Your task to perform on an android device: turn off smart reply in the gmail app Image 0: 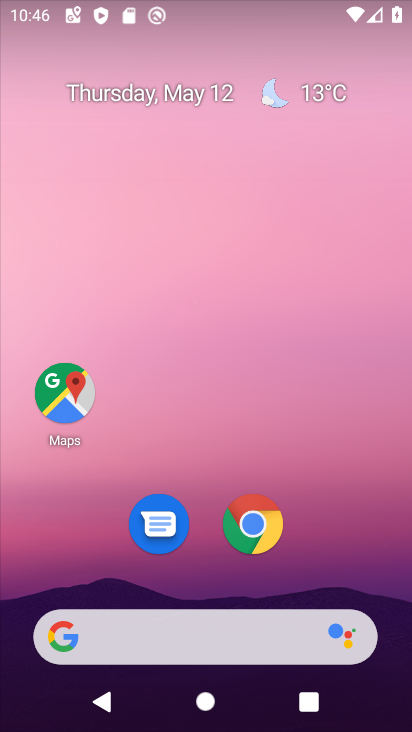
Step 0: drag from (326, 450) to (326, 41)
Your task to perform on an android device: turn off smart reply in the gmail app Image 1: 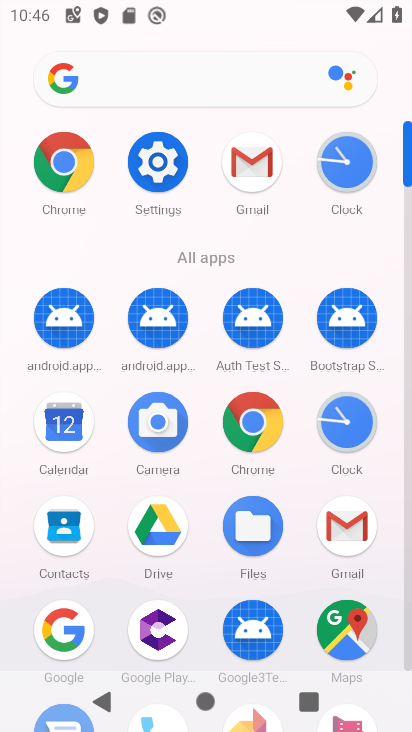
Step 1: click (255, 155)
Your task to perform on an android device: turn off smart reply in the gmail app Image 2: 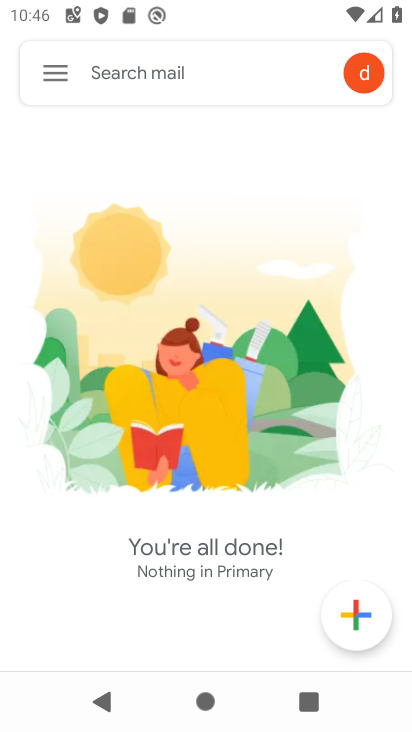
Step 2: click (53, 64)
Your task to perform on an android device: turn off smart reply in the gmail app Image 3: 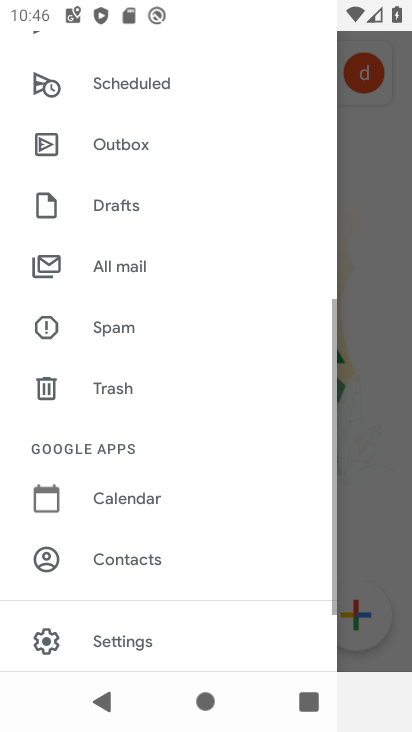
Step 3: drag from (159, 416) to (224, 211)
Your task to perform on an android device: turn off smart reply in the gmail app Image 4: 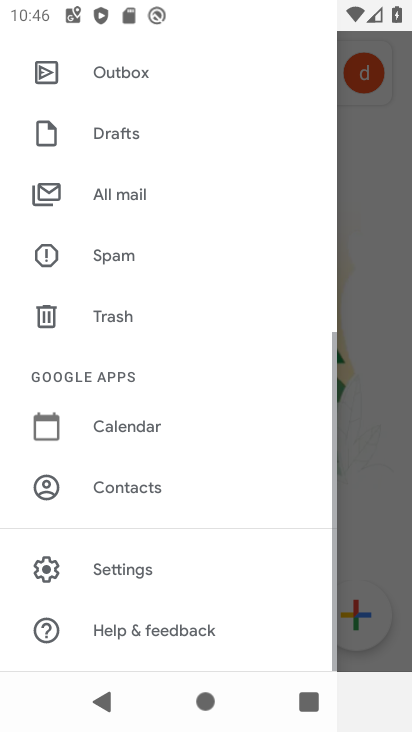
Step 4: click (123, 559)
Your task to perform on an android device: turn off smart reply in the gmail app Image 5: 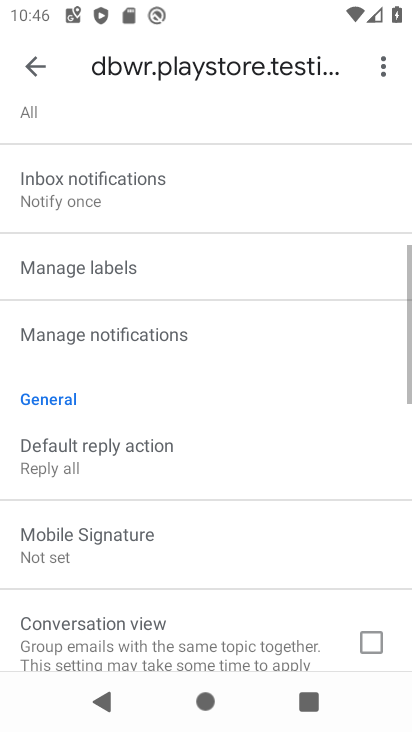
Step 5: drag from (192, 506) to (240, 117)
Your task to perform on an android device: turn off smart reply in the gmail app Image 6: 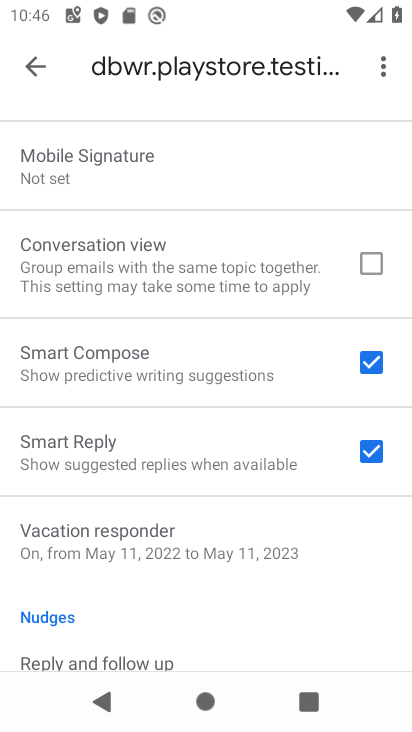
Step 6: click (367, 447)
Your task to perform on an android device: turn off smart reply in the gmail app Image 7: 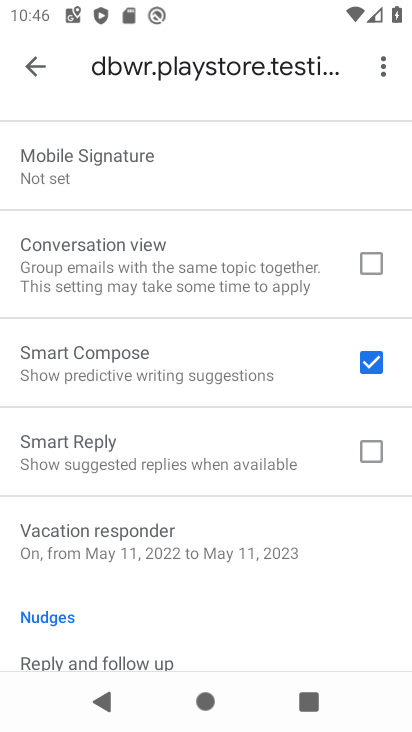
Step 7: task complete